Your task to perform on an android device: toggle pop-ups in chrome Image 0: 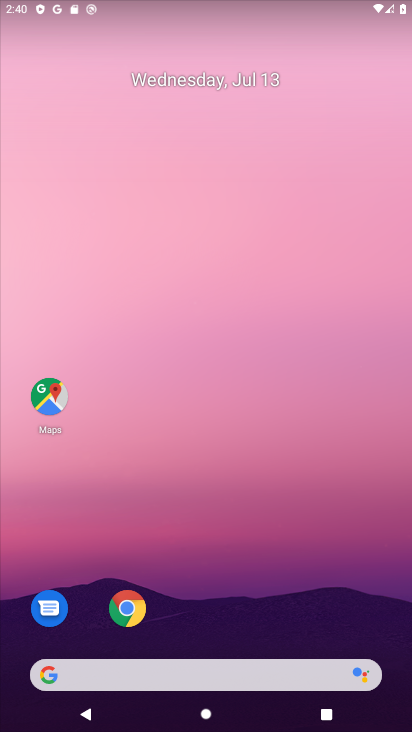
Step 0: click (132, 614)
Your task to perform on an android device: toggle pop-ups in chrome Image 1: 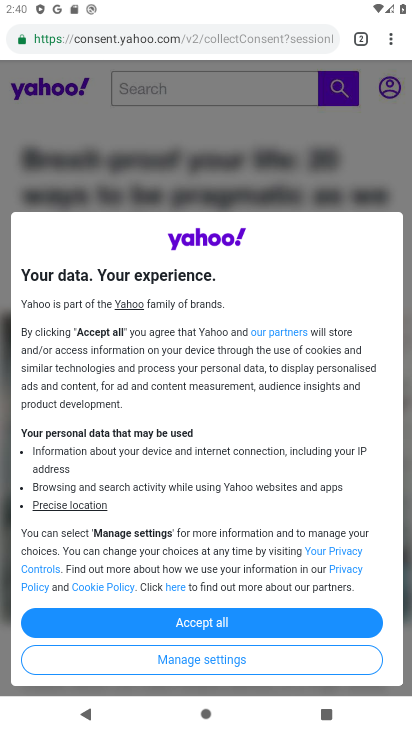
Step 1: click (385, 32)
Your task to perform on an android device: toggle pop-ups in chrome Image 2: 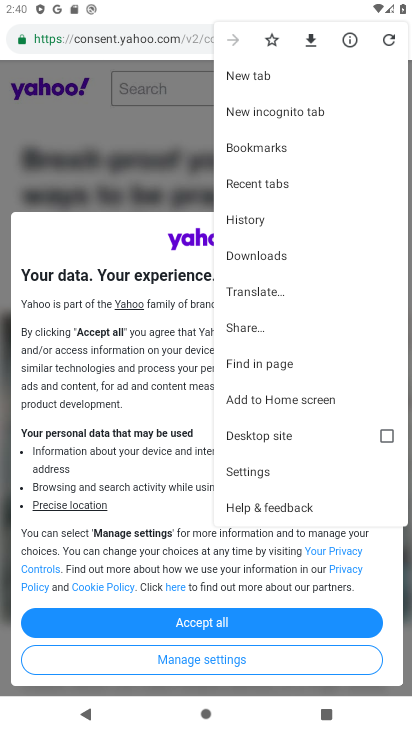
Step 2: click (249, 465)
Your task to perform on an android device: toggle pop-ups in chrome Image 3: 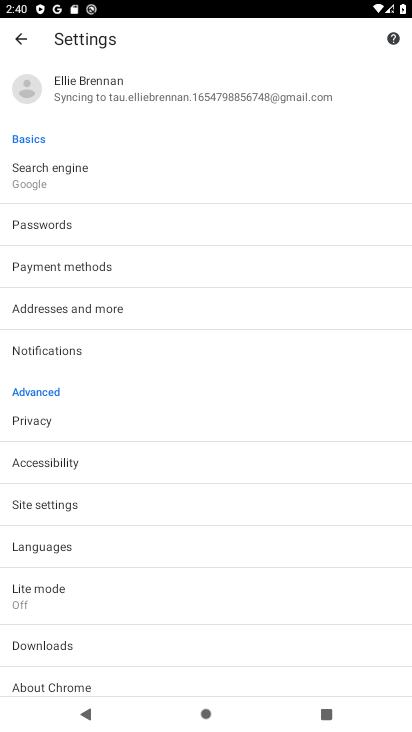
Step 3: click (50, 512)
Your task to perform on an android device: toggle pop-ups in chrome Image 4: 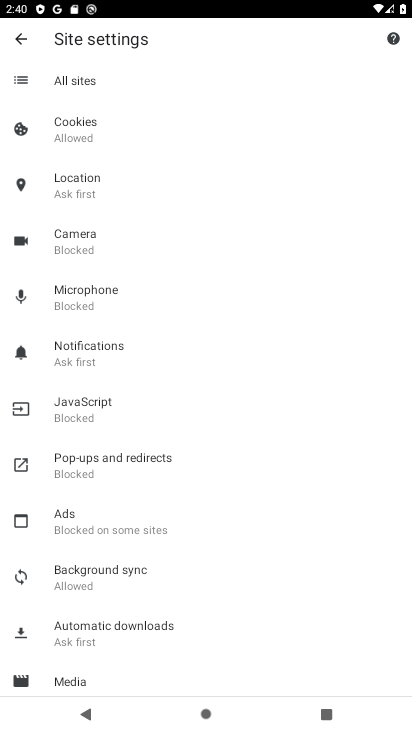
Step 4: click (89, 486)
Your task to perform on an android device: toggle pop-ups in chrome Image 5: 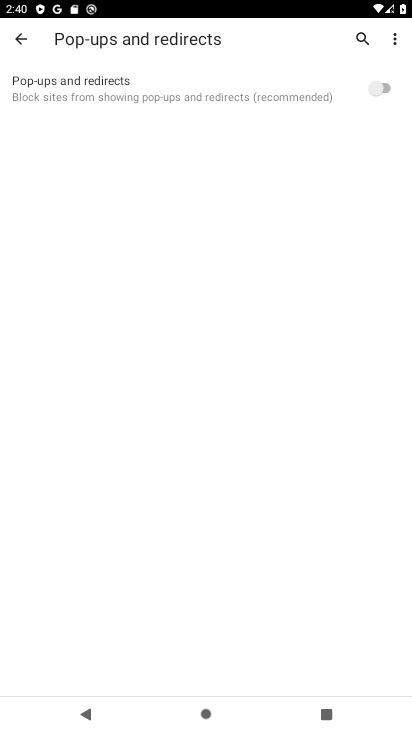
Step 5: click (381, 97)
Your task to perform on an android device: toggle pop-ups in chrome Image 6: 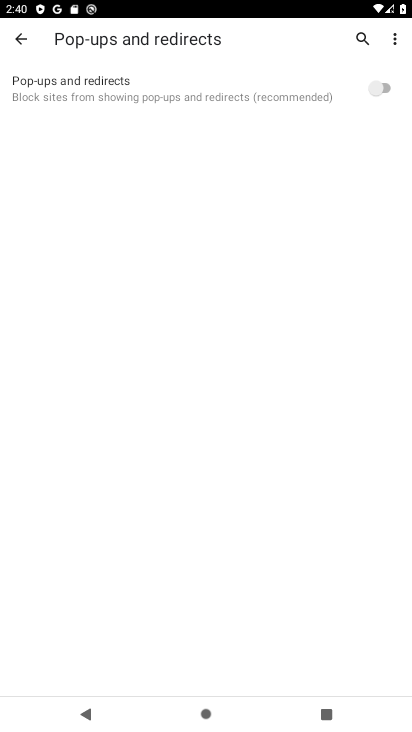
Step 6: click (381, 97)
Your task to perform on an android device: toggle pop-ups in chrome Image 7: 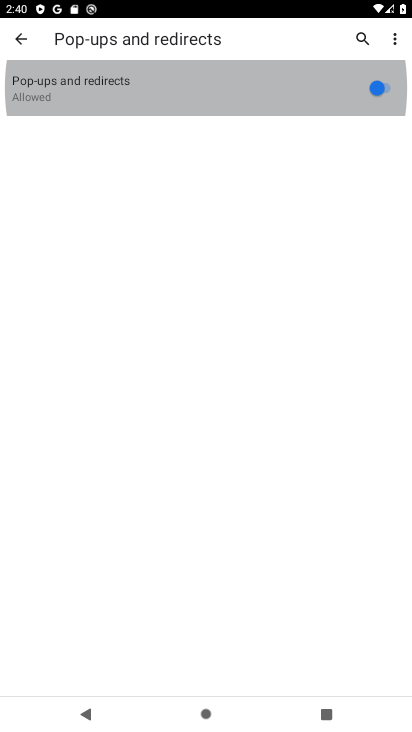
Step 7: click (381, 97)
Your task to perform on an android device: toggle pop-ups in chrome Image 8: 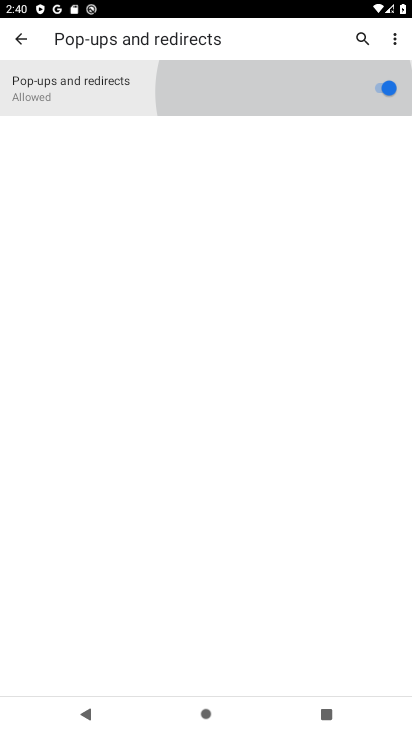
Step 8: click (381, 97)
Your task to perform on an android device: toggle pop-ups in chrome Image 9: 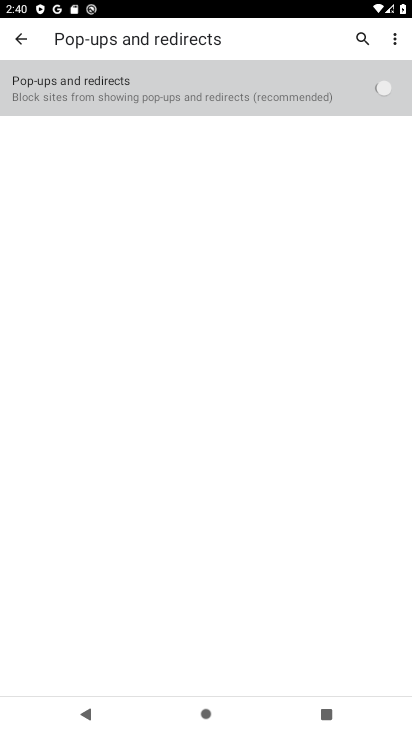
Step 9: click (381, 97)
Your task to perform on an android device: toggle pop-ups in chrome Image 10: 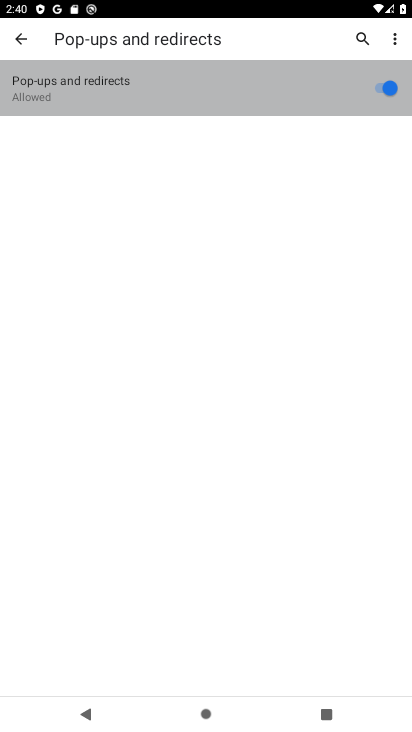
Step 10: click (381, 97)
Your task to perform on an android device: toggle pop-ups in chrome Image 11: 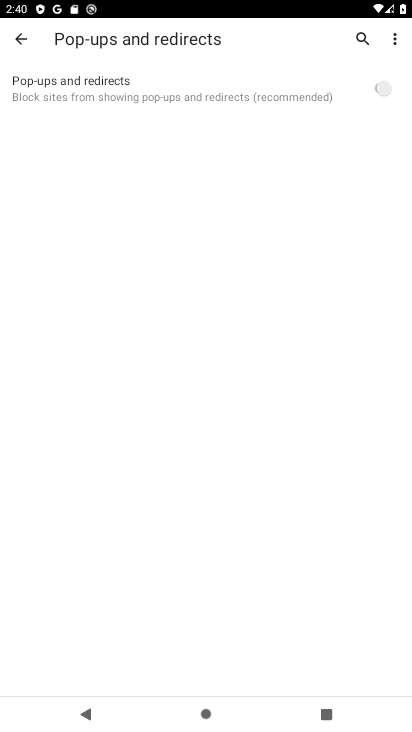
Step 11: click (381, 97)
Your task to perform on an android device: toggle pop-ups in chrome Image 12: 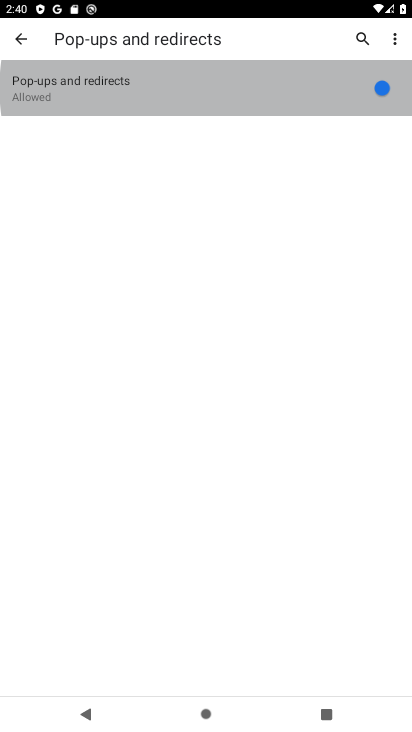
Step 12: click (381, 97)
Your task to perform on an android device: toggle pop-ups in chrome Image 13: 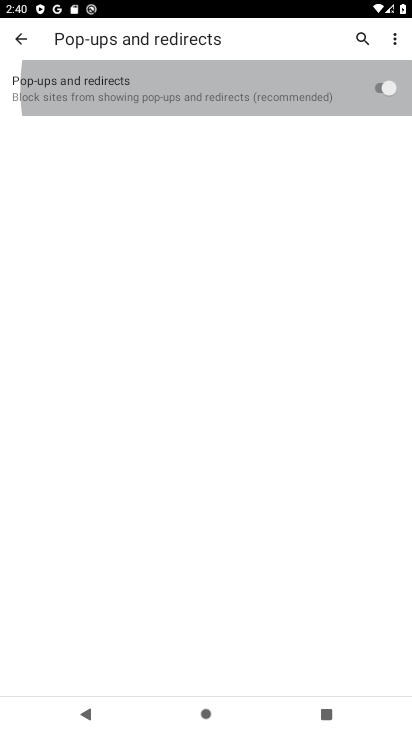
Step 13: click (381, 97)
Your task to perform on an android device: toggle pop-ups in chrome Image 14: 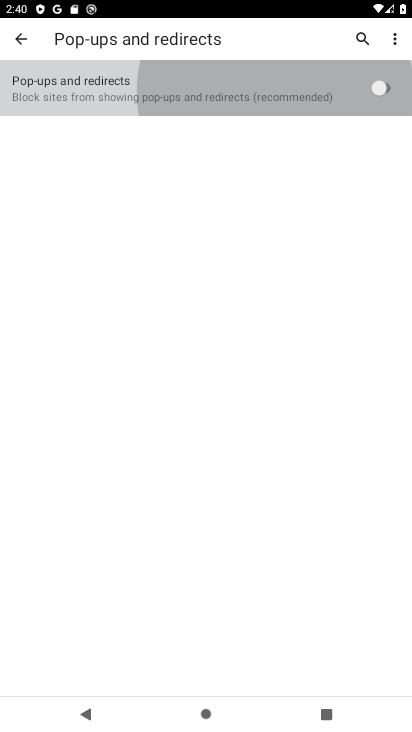
Step 14: click (381, 97)
Your task to perform on an android device: toggle pop-ups in chrome Image 15: 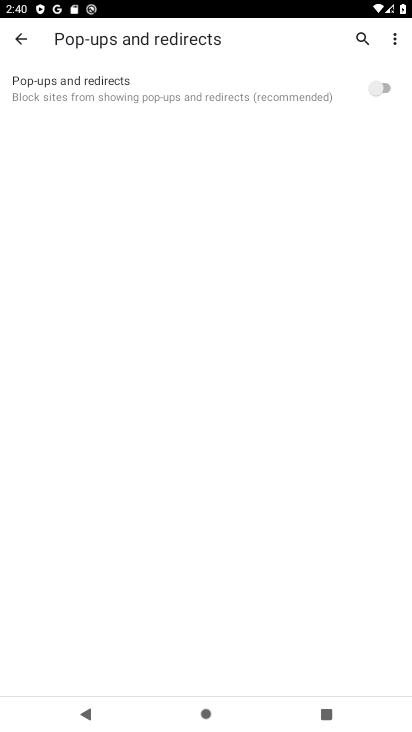
Step 15: task complete